Your task to perform on an android device: Open the calendar and show me this week's events? Image 0: 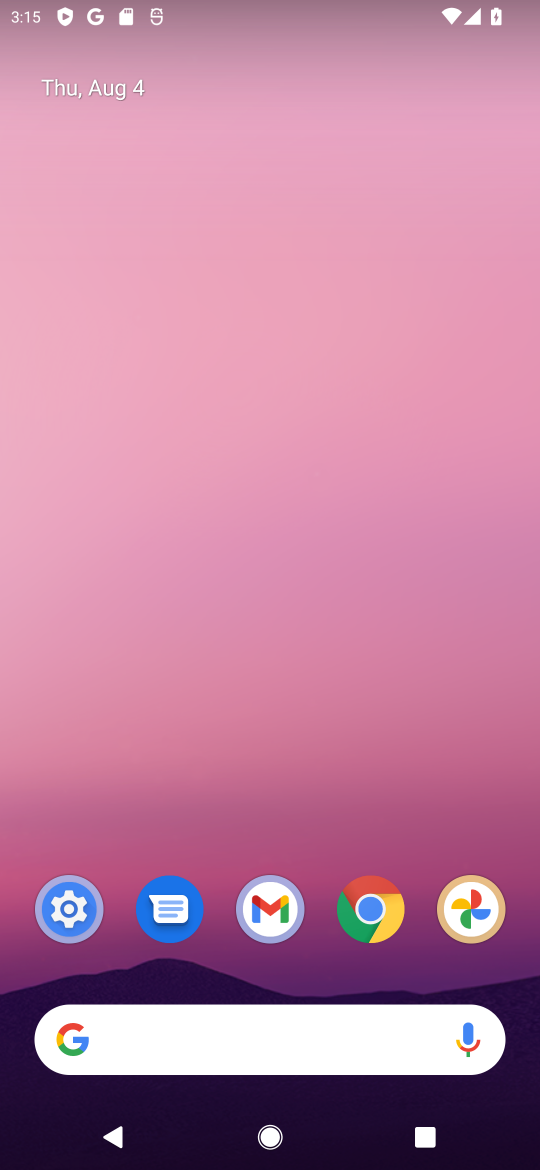
Step 0: drag from (283, 947) to (388, 253)
Your task to perform on an android device: Open the calendar and show me this week's events? Image 1: 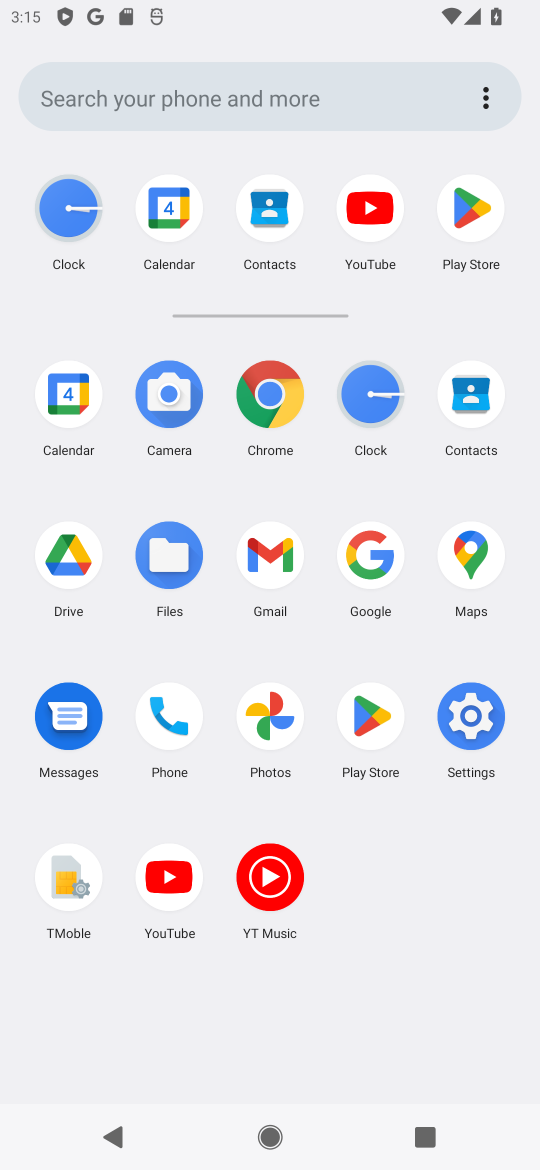
Step 1: click (68, 408)
Your task to perform on an android device: Open the calendar and show me this week's events? Image 2: 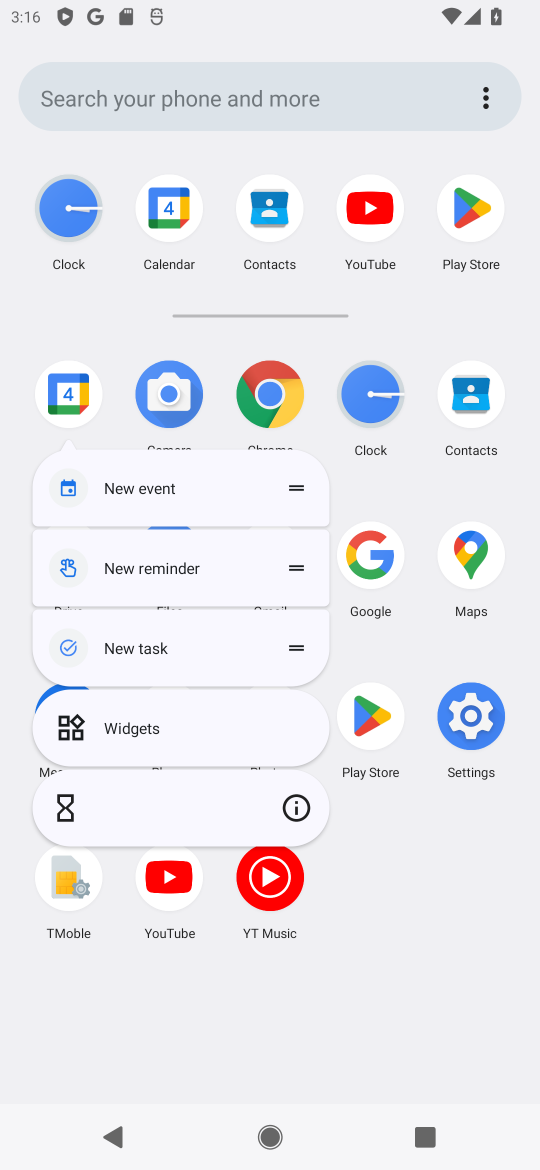
Step 2: click (65, 387)
Your task to perform on an android device: Open the calendar and show me this week's events? Image 3: 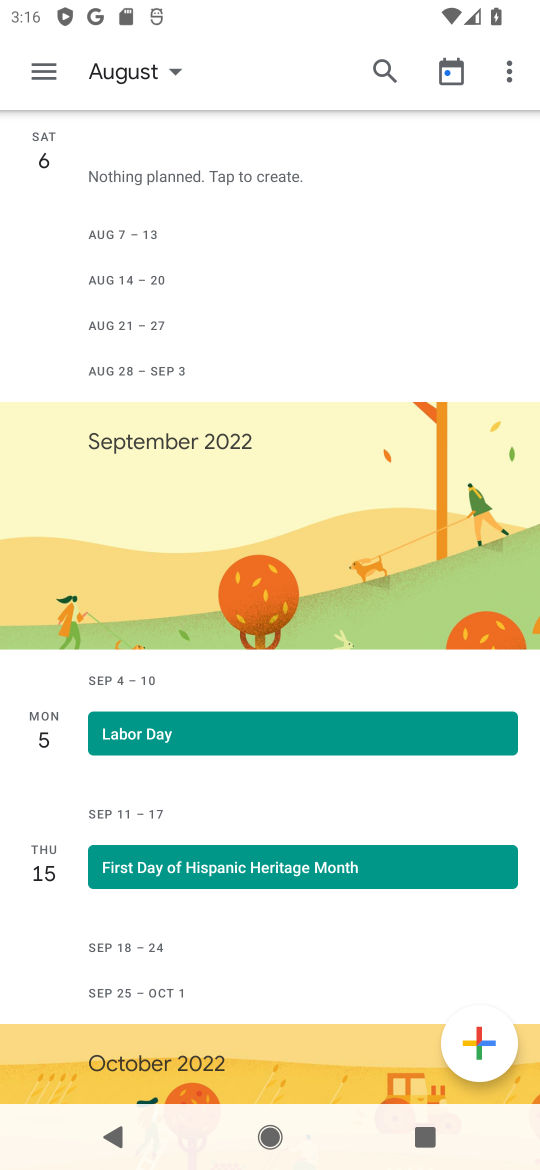
Step 3: click (148, 80)
Your task to perform on an android device: Open the calendar and show me this week's events? Image 4: 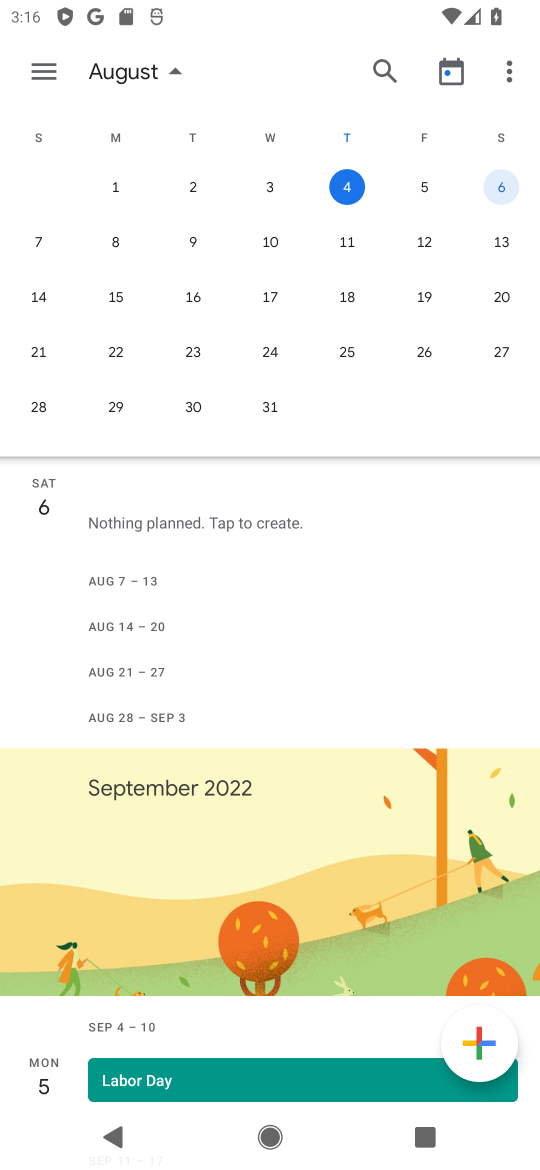
Step 4: click (356, 191)
Your task to perform on an android device: Open the calendar and show me this week's events? Image 5: 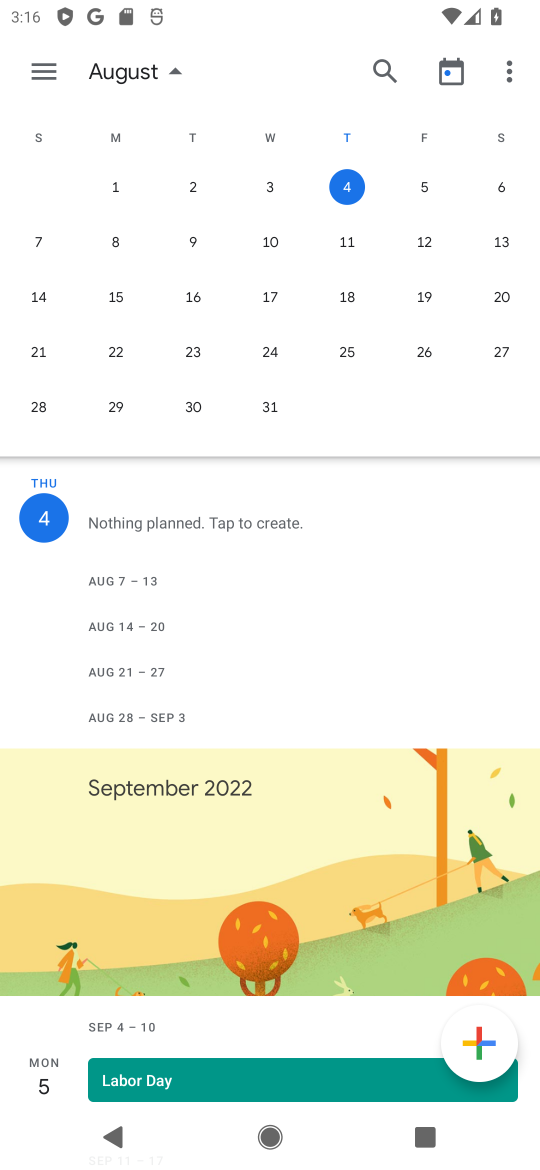
Step 5: click (46, 62)
Your task to perform on an android device: Open the calendar and show me this week's events? Image 6: 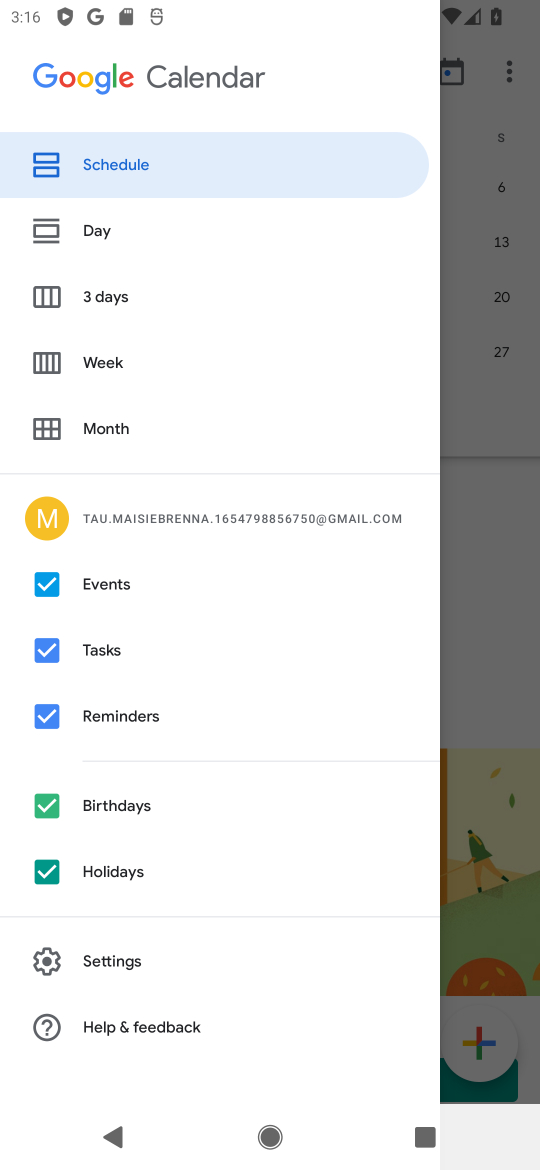
Step 6: click (101, 367)
Your task to perform on an android device: Open the calendar and show me this week's events? Image 7: 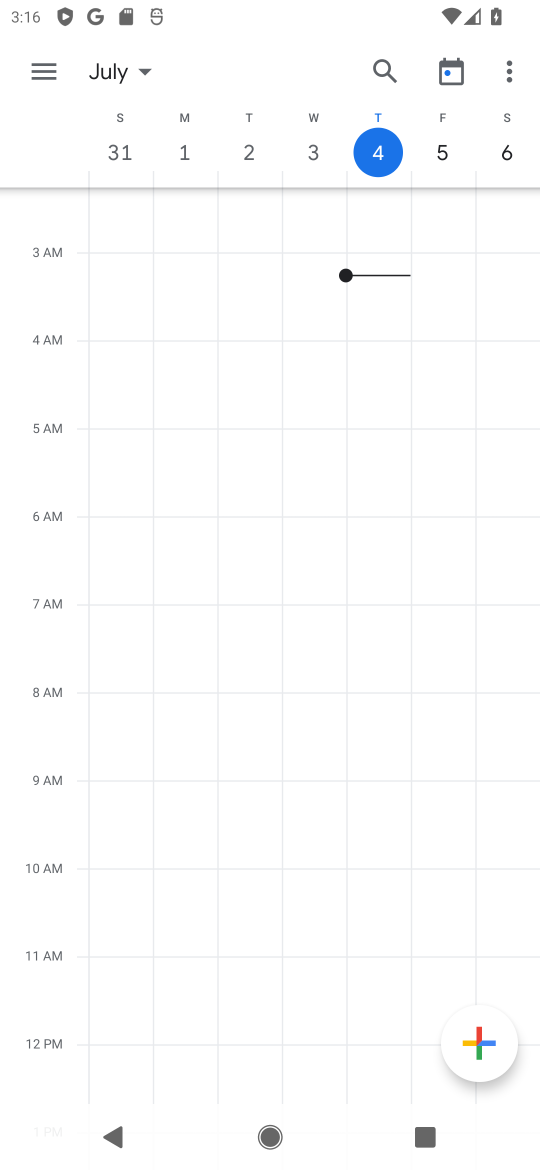
Step 7: click (50, 70)
Your task to perform on an android device: Open the calendar and show me this week's events? Image 8: 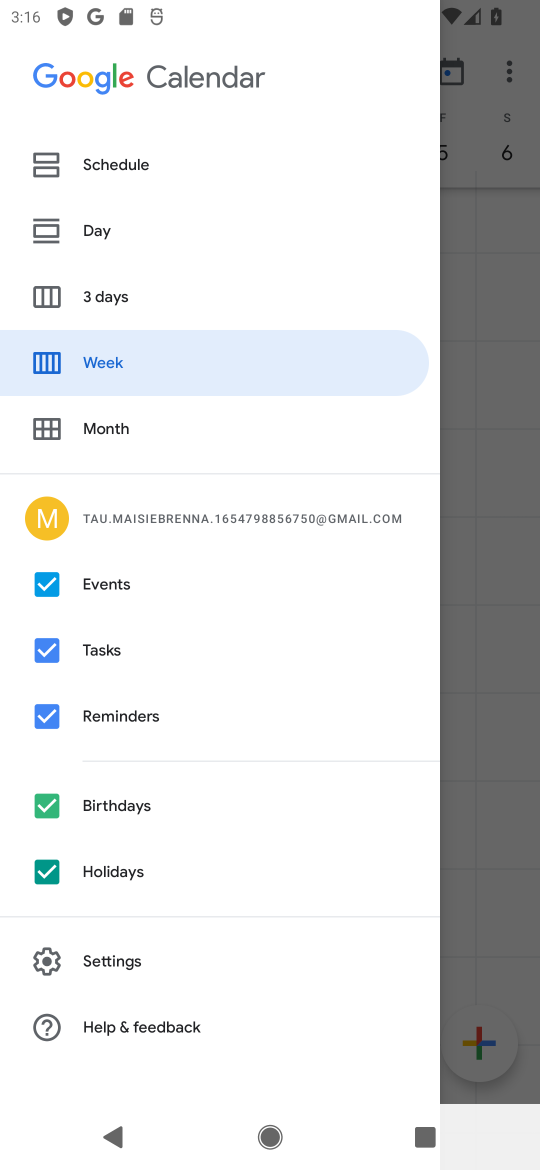
Step 8: click (138, 164)
Your task to perform on an android device: Open the calendar and show me this week's events? Image 9: 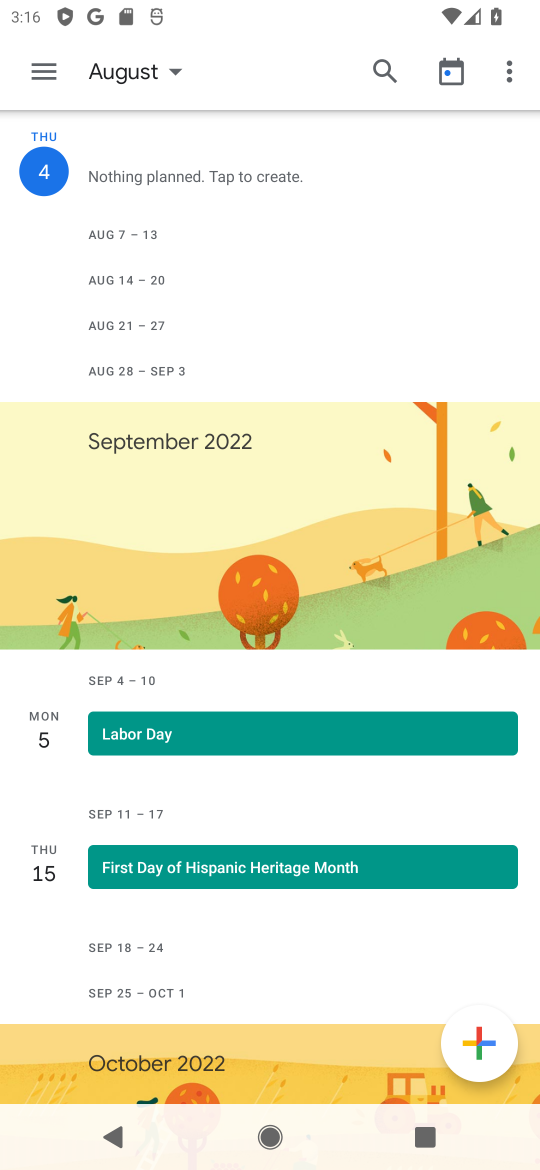
Step 9: task complete